Your task to perform on an android device: Search for a coffee table on IKEA Image 0: 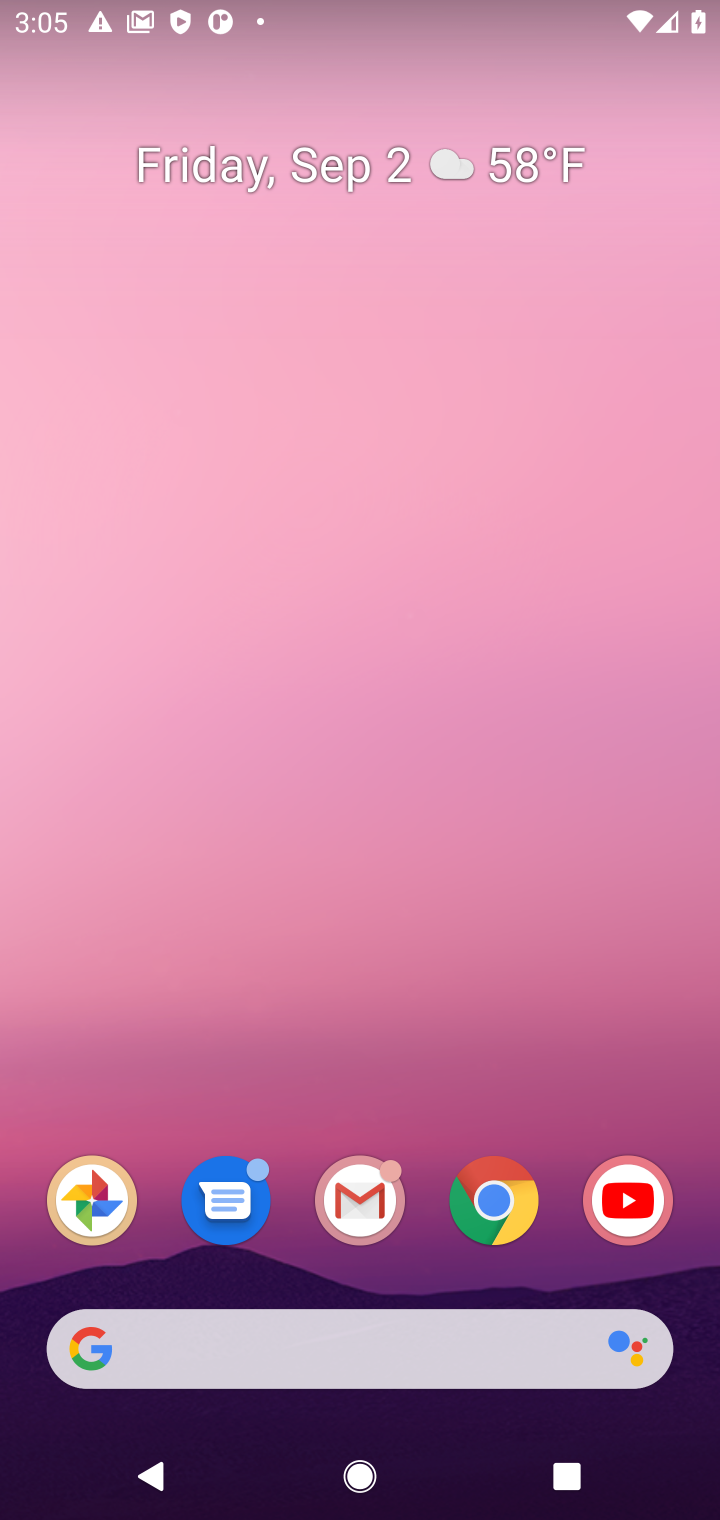
Step 0: click (496, 1201)
Your task to perform on an android device: Search for a coffee table on IKEA Image 1: 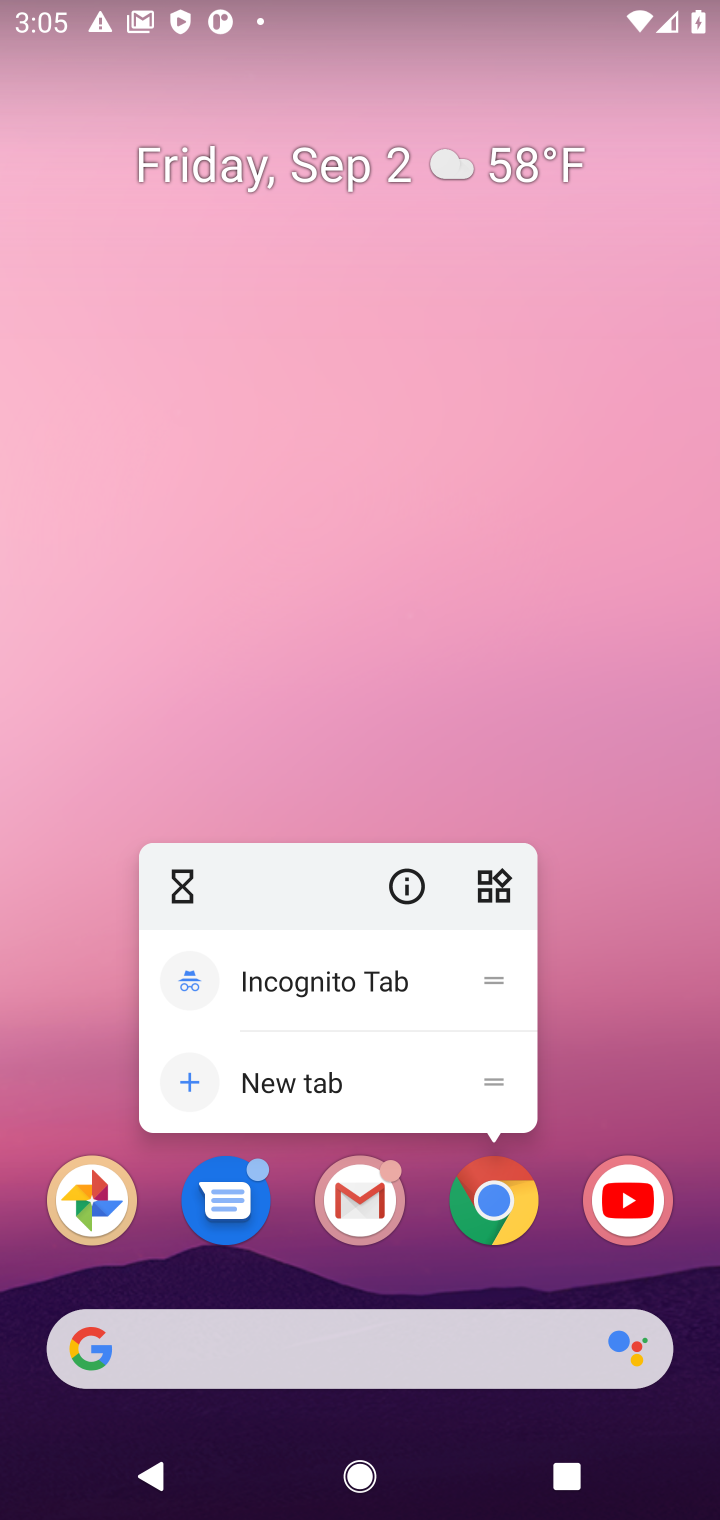
Step 1: click (496, 1203)
Your task to perform on an android device: Search for a coffee table on IKEA Image 2: 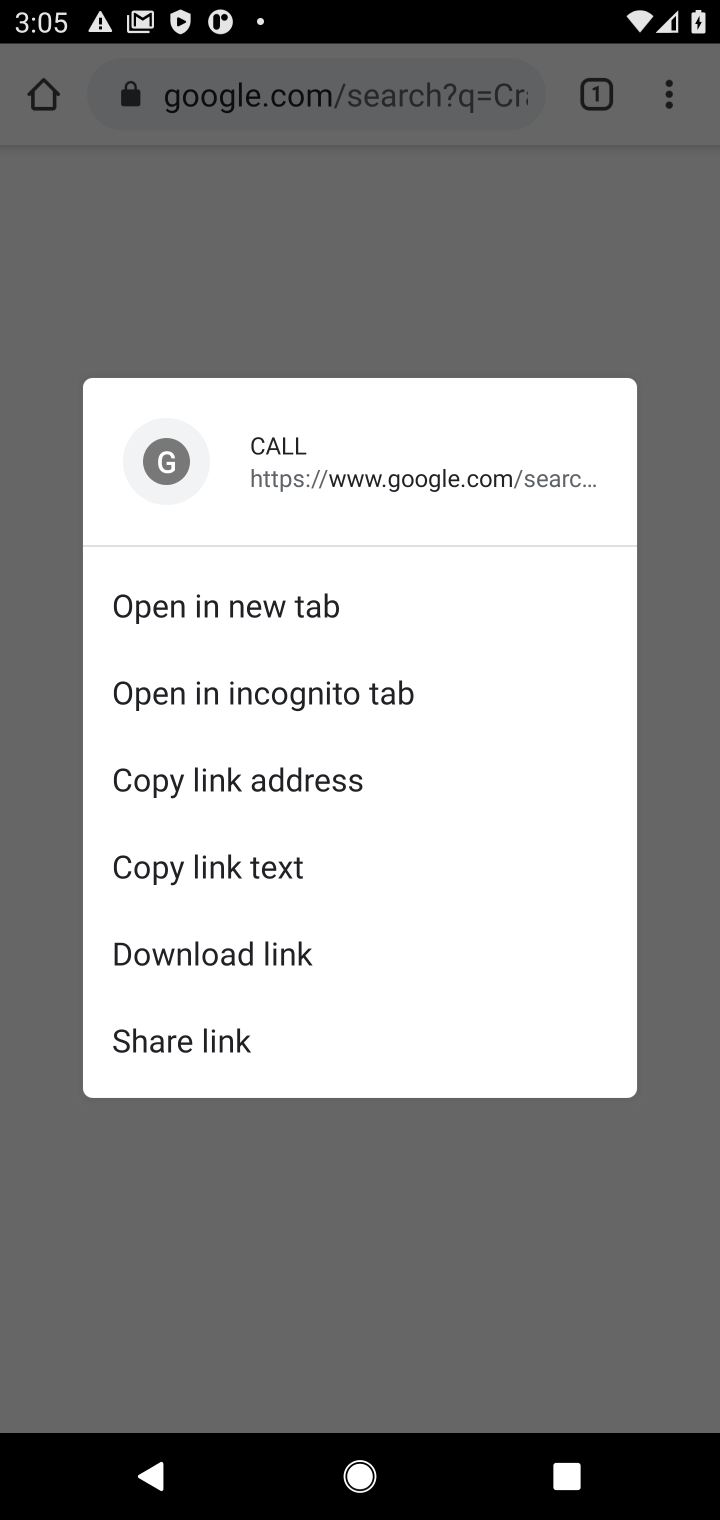
Step 2: click (388, 98)
Your task to perform on an android device: Search for a coffee table on IKEA Image 3: 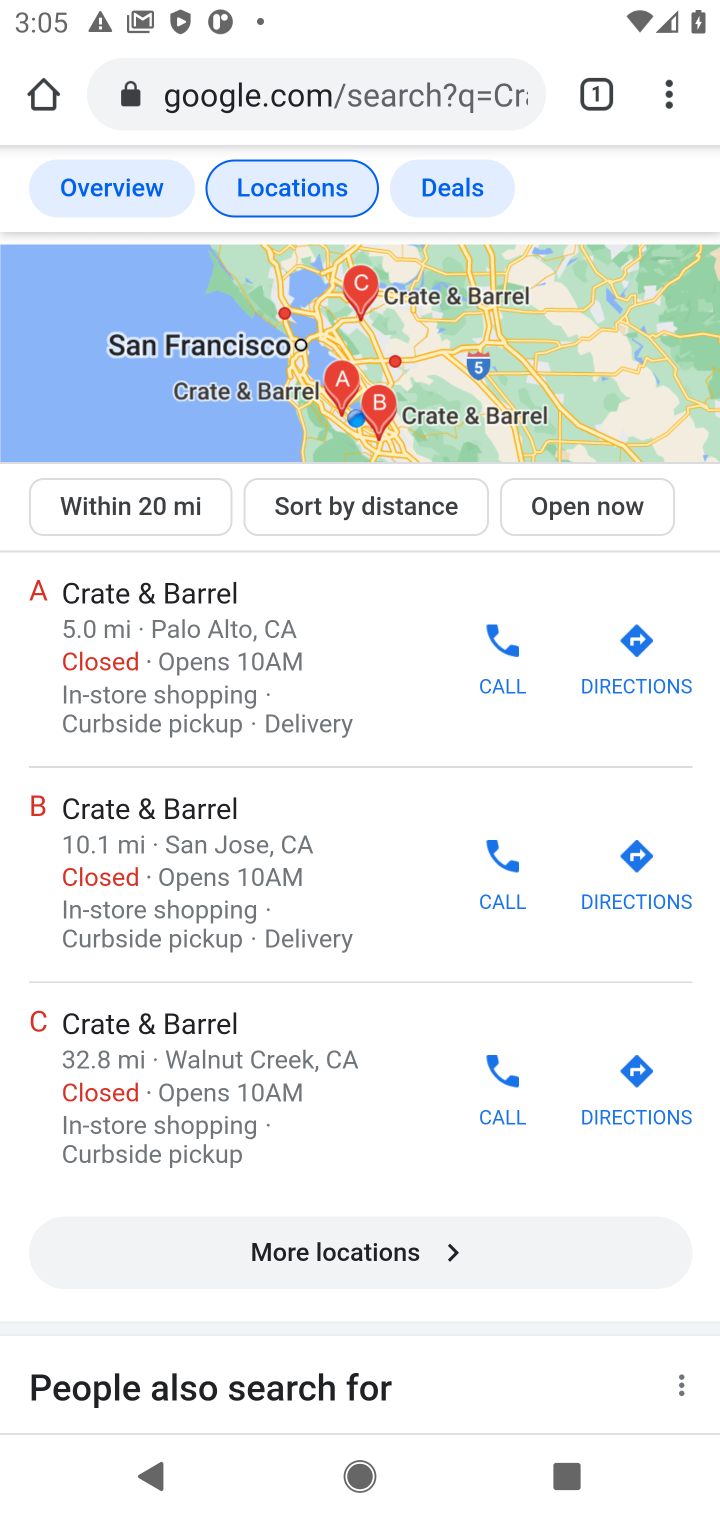
Step 3: click (413, 82)
Your task to perform on an android device: Search for a coffee table on IKEA Image 4: 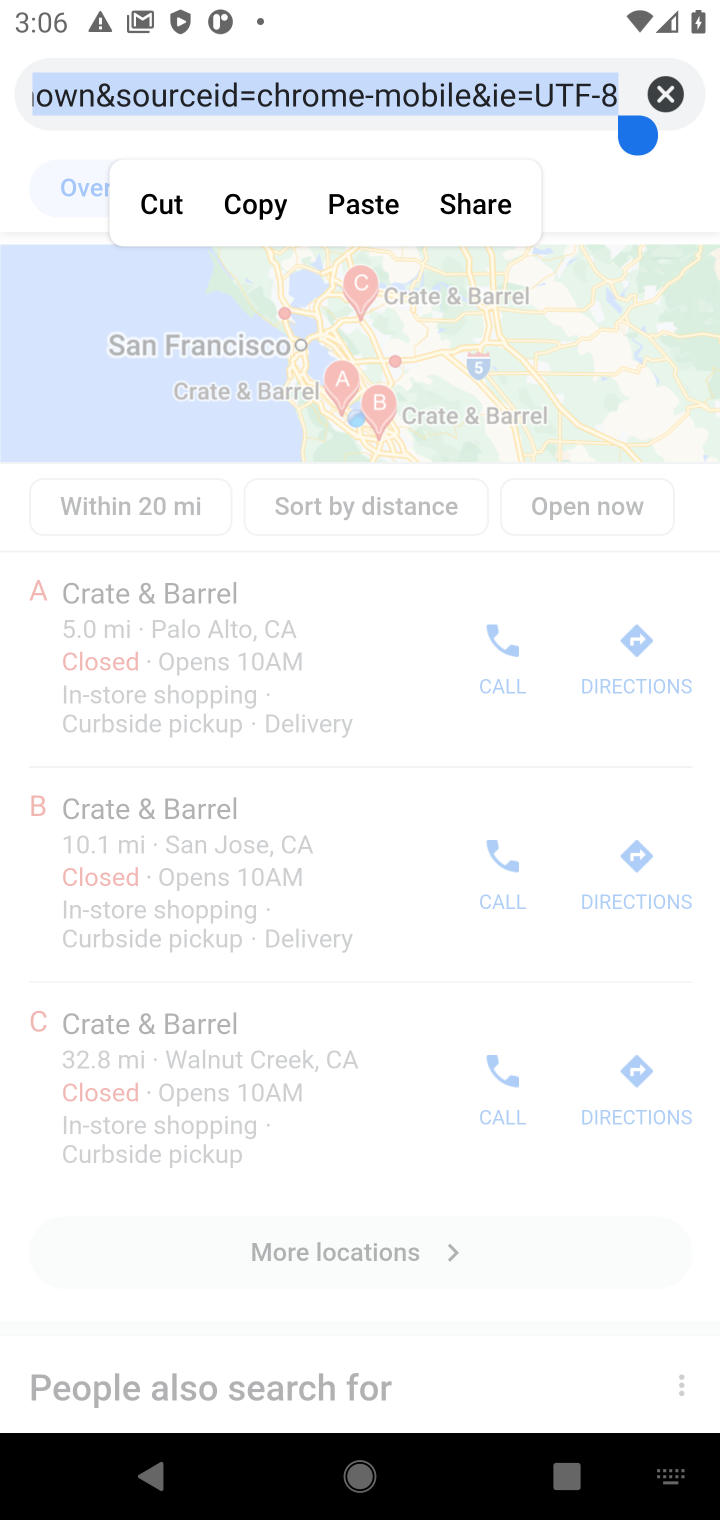
Step 4: click (662, 96)
Your task to perform on an android device: Search for a coffee table on IKEA Image 5: 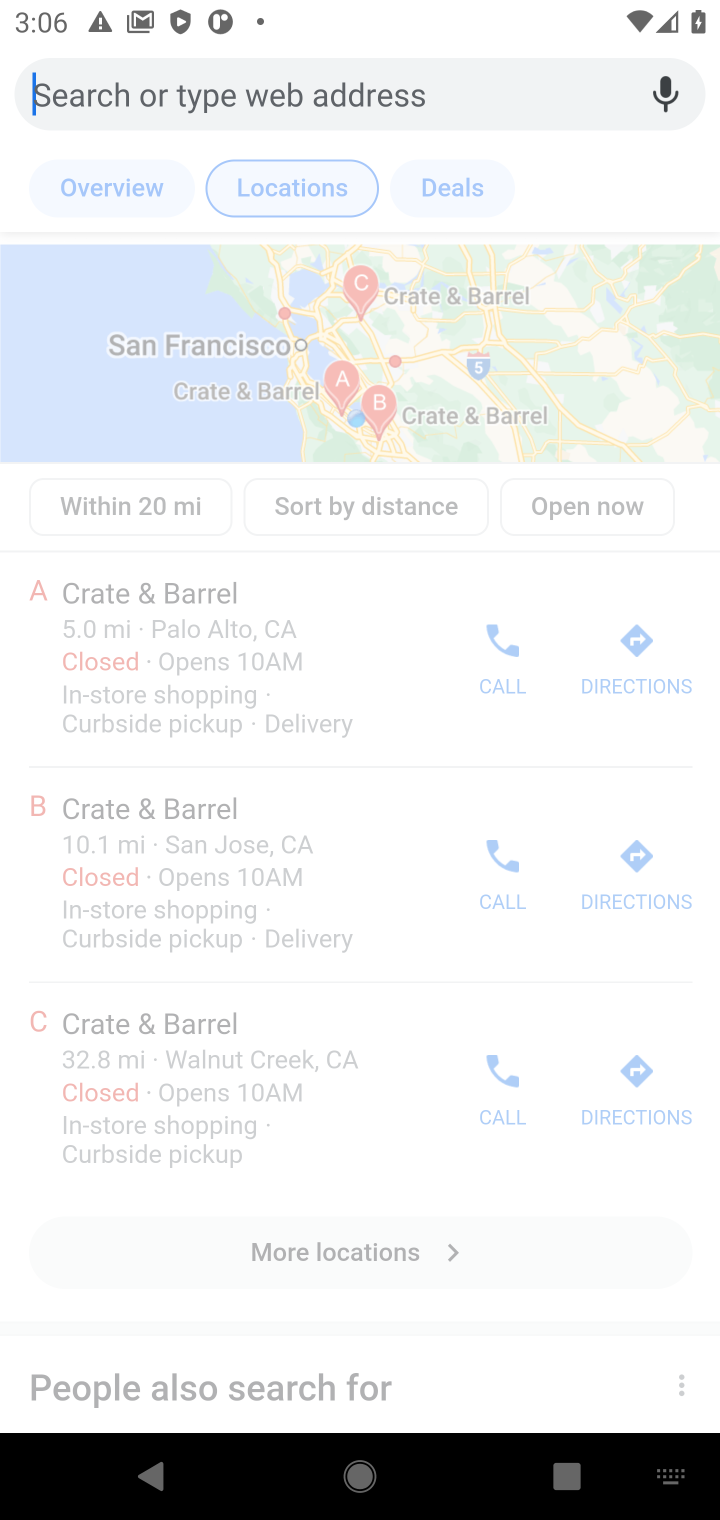
Step 5: click (468, 72)
Your task to perform on an android device: Search for a coffee table on IKEA Image 6: 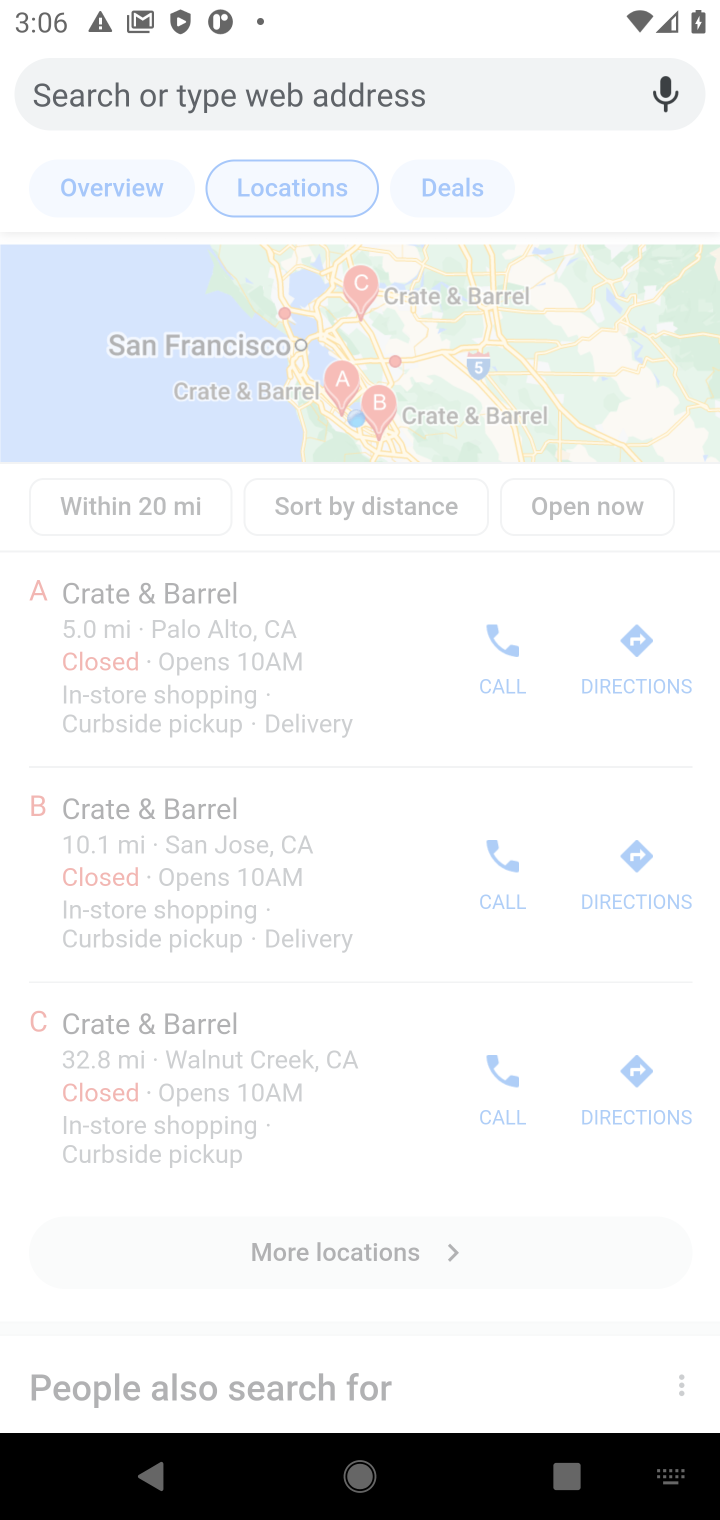
Step 6: type "IKEA"
Your task to perform on an android device: Search for a coffee table on IKEA Image 7: 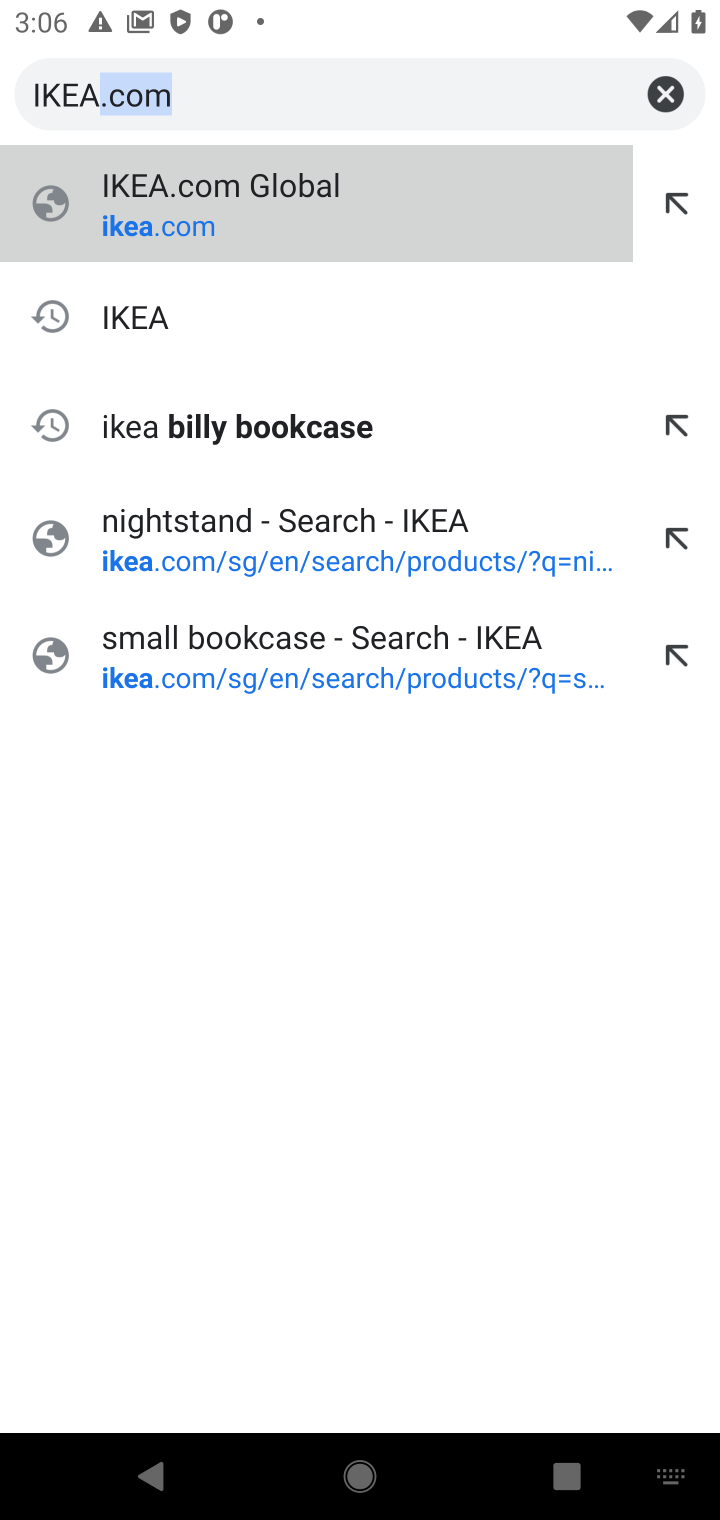
Step 7: press enter
Your task to perform on an android device: Search for a coffee table on IKEA Image 8: 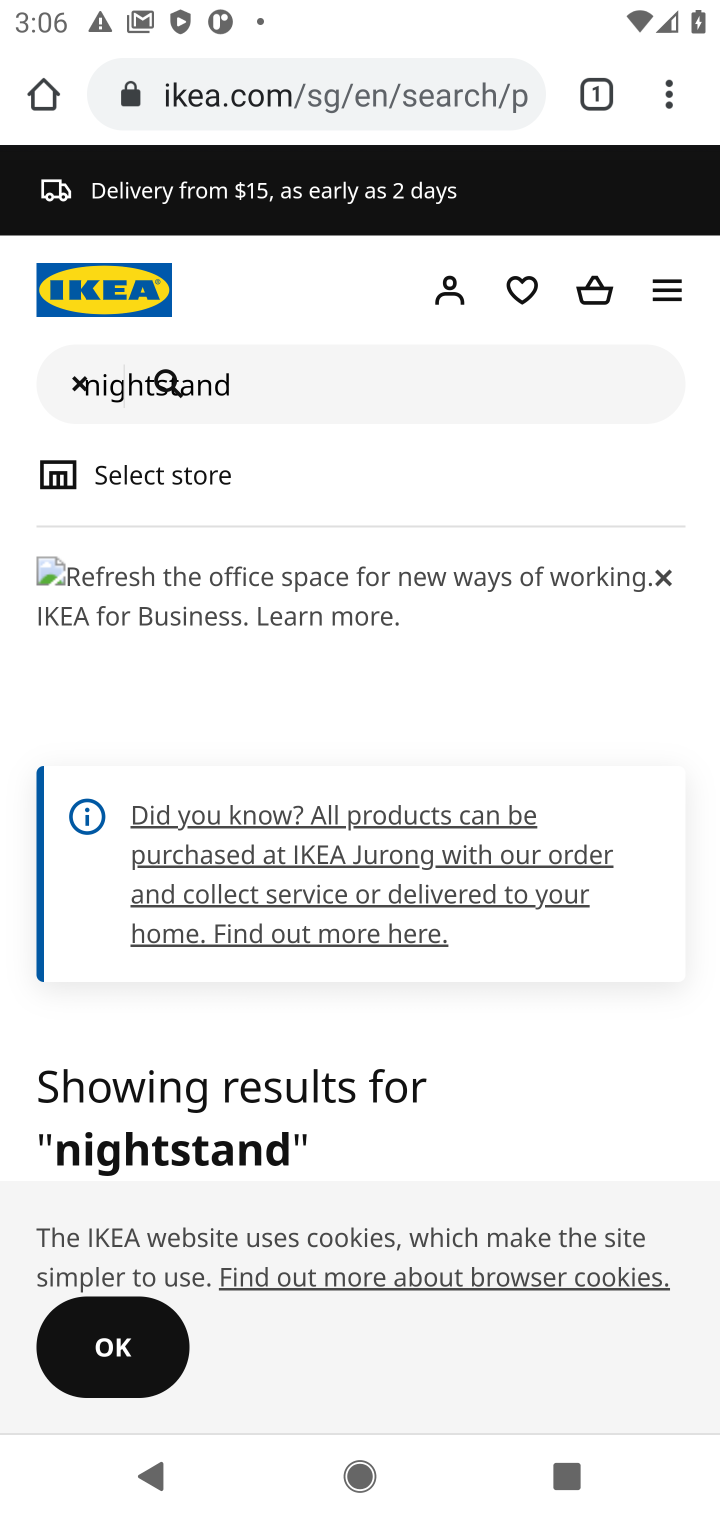
Step 8: click (367, 379)
Your task to perform on an android device: Search for a coffee table on IKEA Image 9: 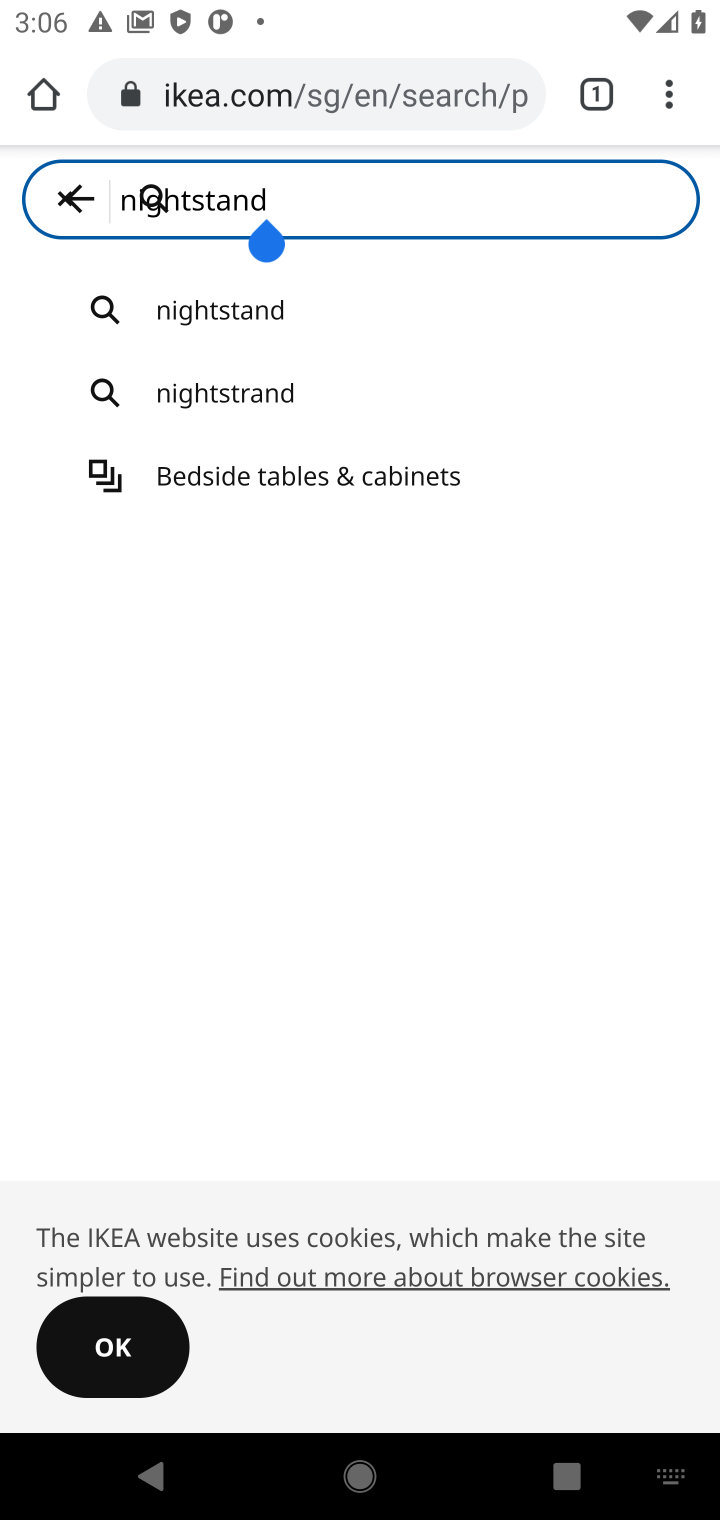
Step 9: click (393, 197)
Your task to perform on an android device: Search for a coffee table on IKEA Image 10: 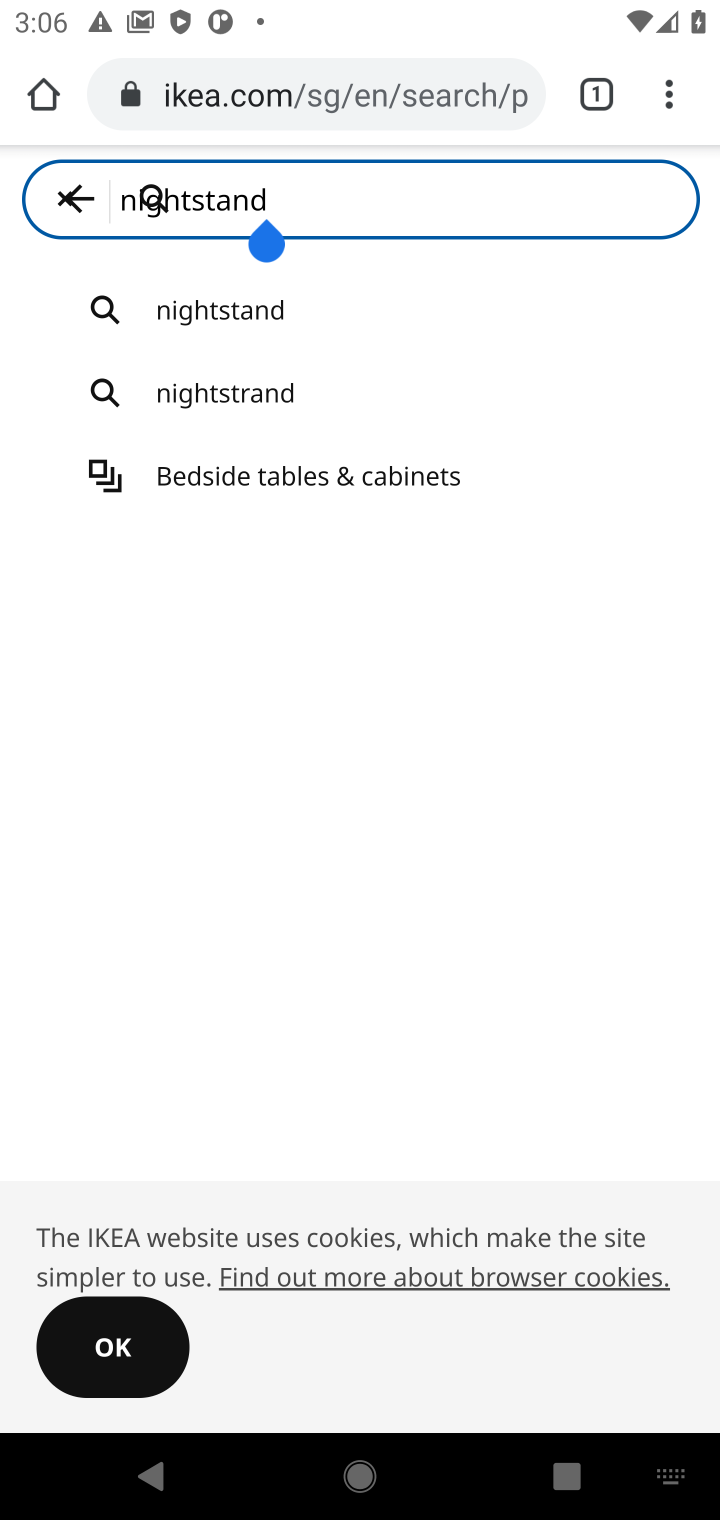
Step 10: click (157, 197)
Your task to perform on an android device: Search for a coffee table on IKEA Image 11: 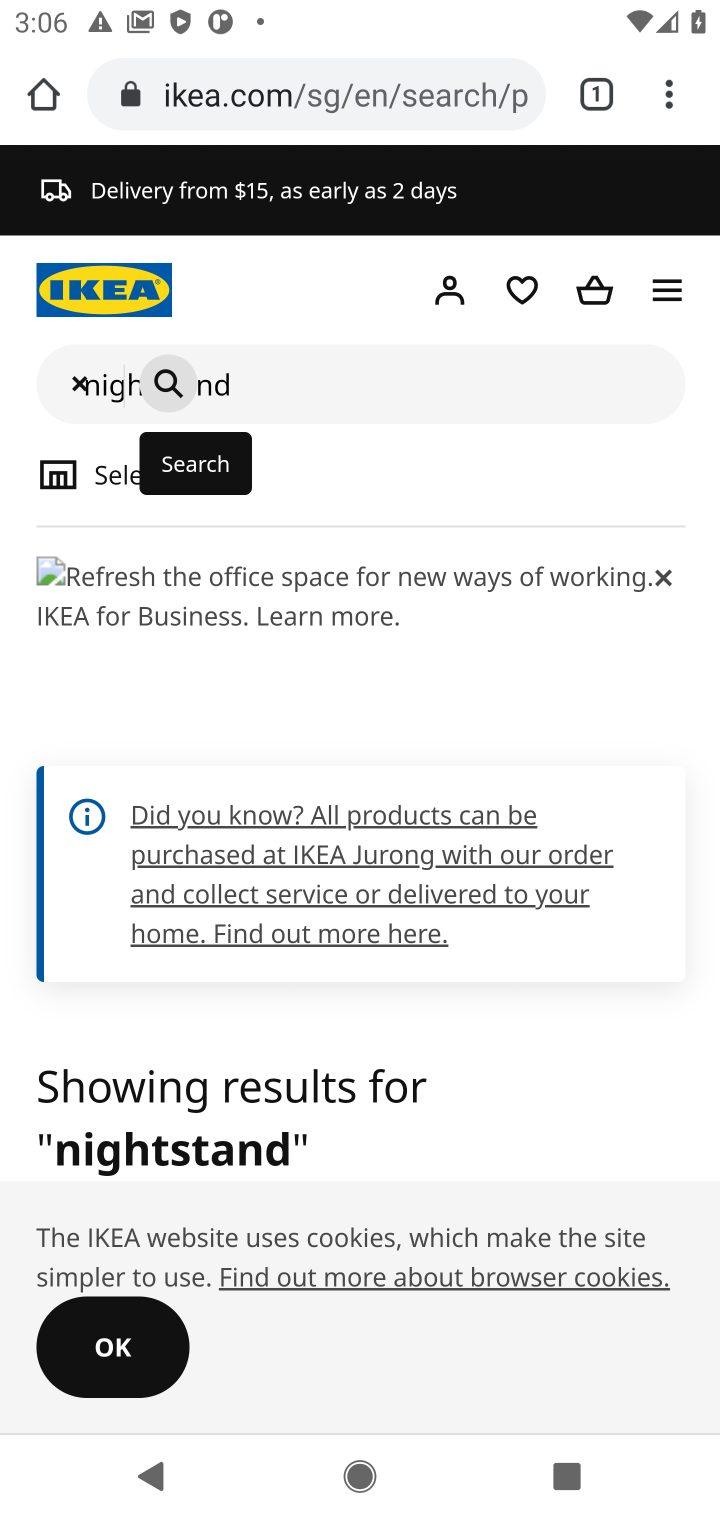
Step 11: click (284, 387)
Your task to perform on an android device: Search for a coffee table on IKEA Image 12: 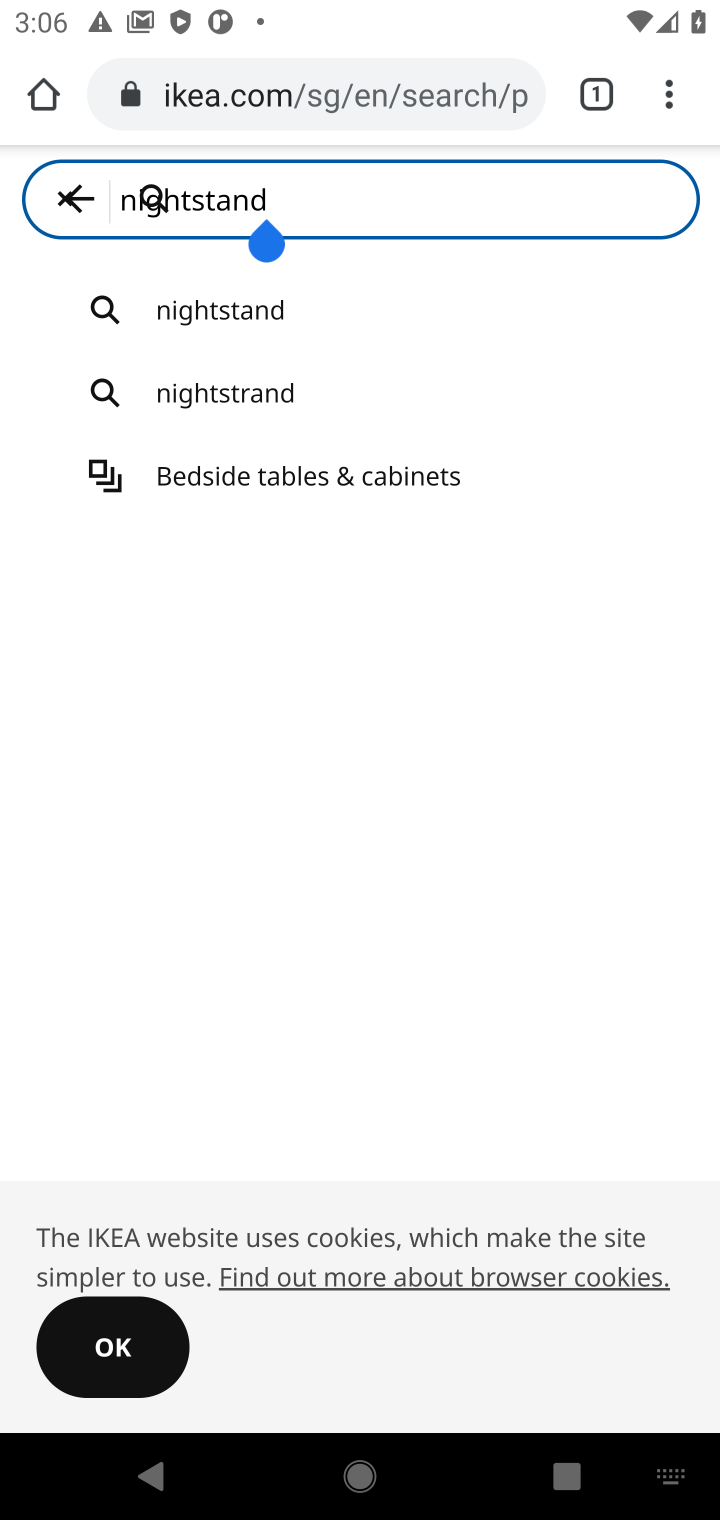
Step 12: click (65, 193)
Your task to perform on an android device: Search for a coffee table on IKEA Image 13: 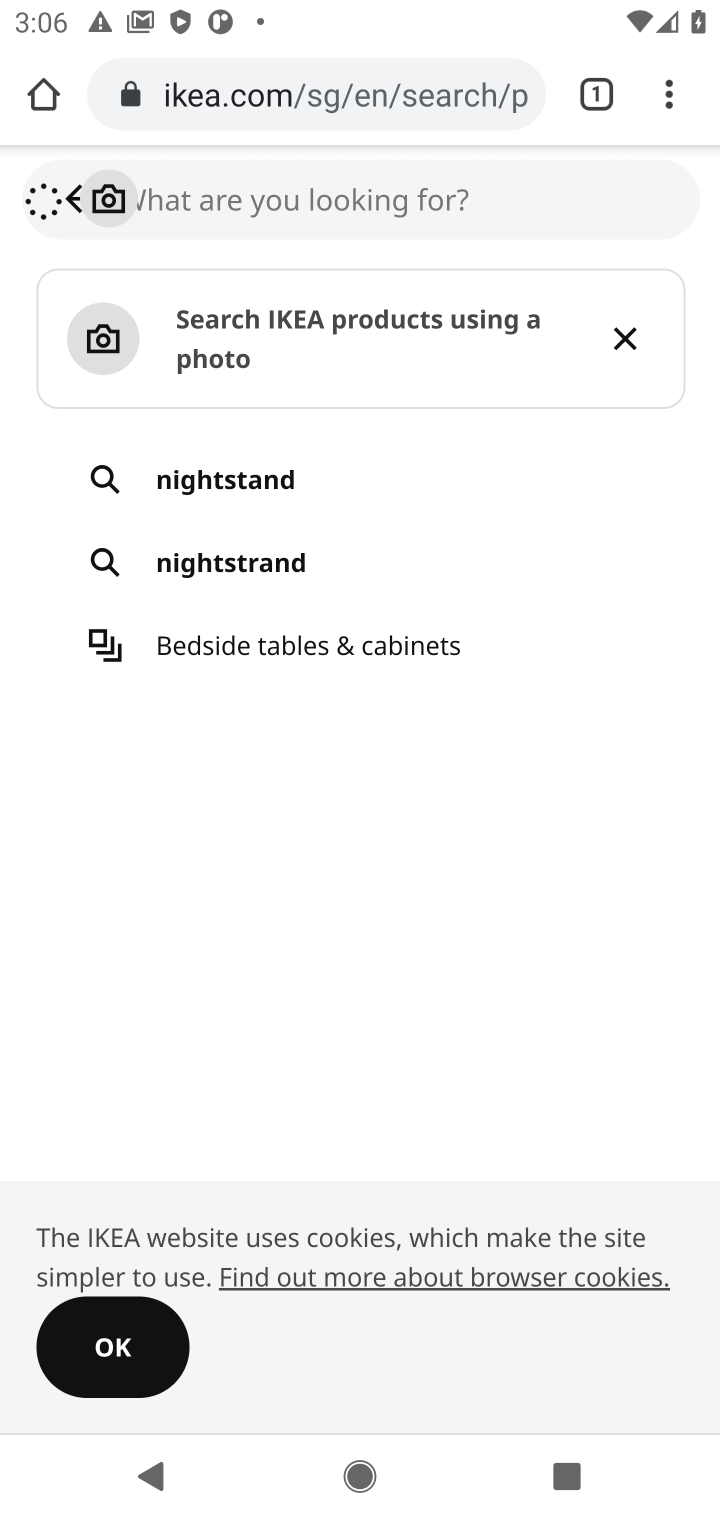
Step 13: click (252, 205)
Your task to perform on an android device: Search for a coffee table on IKEA Image 14: 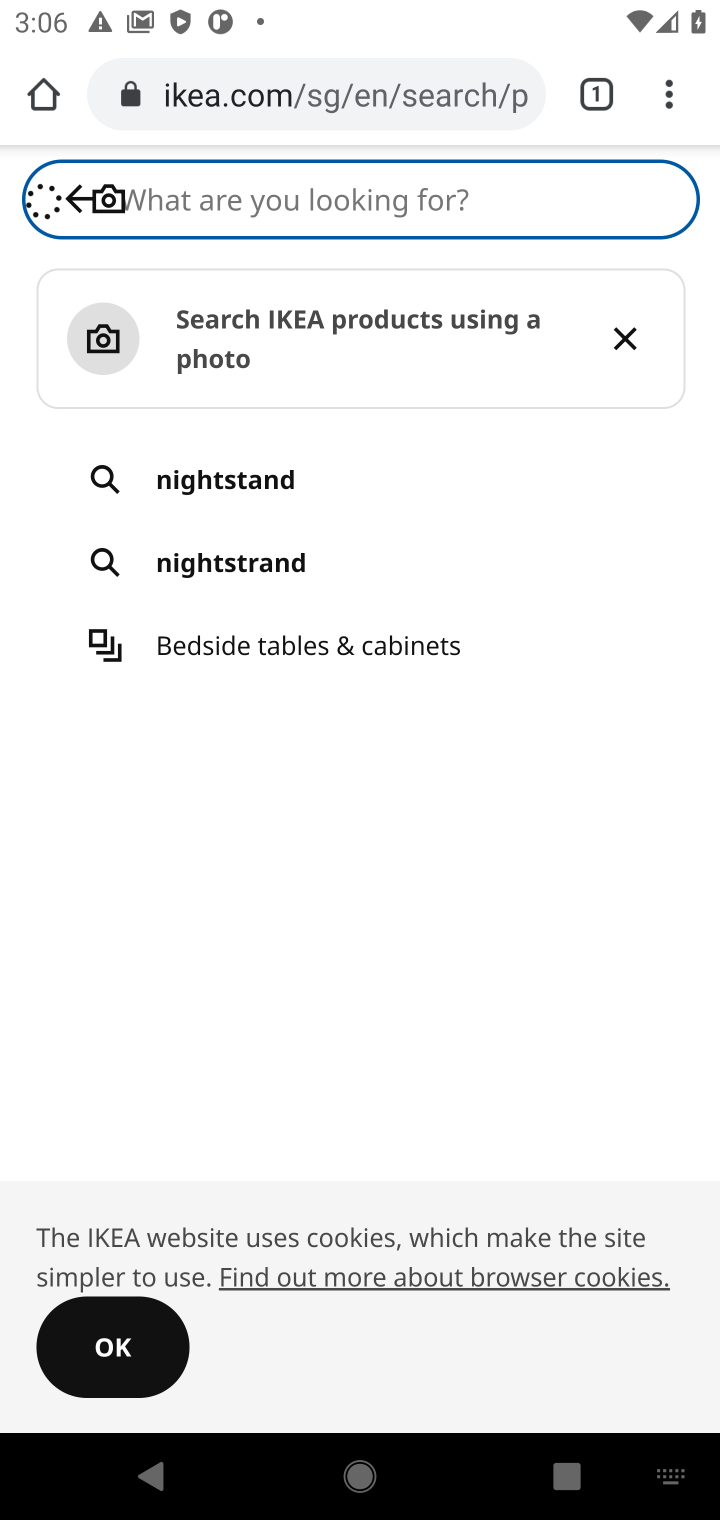
Step 14: type "coffee table"
Your task to perform on an android device: Search for a coffee table on IKEA Image 15: 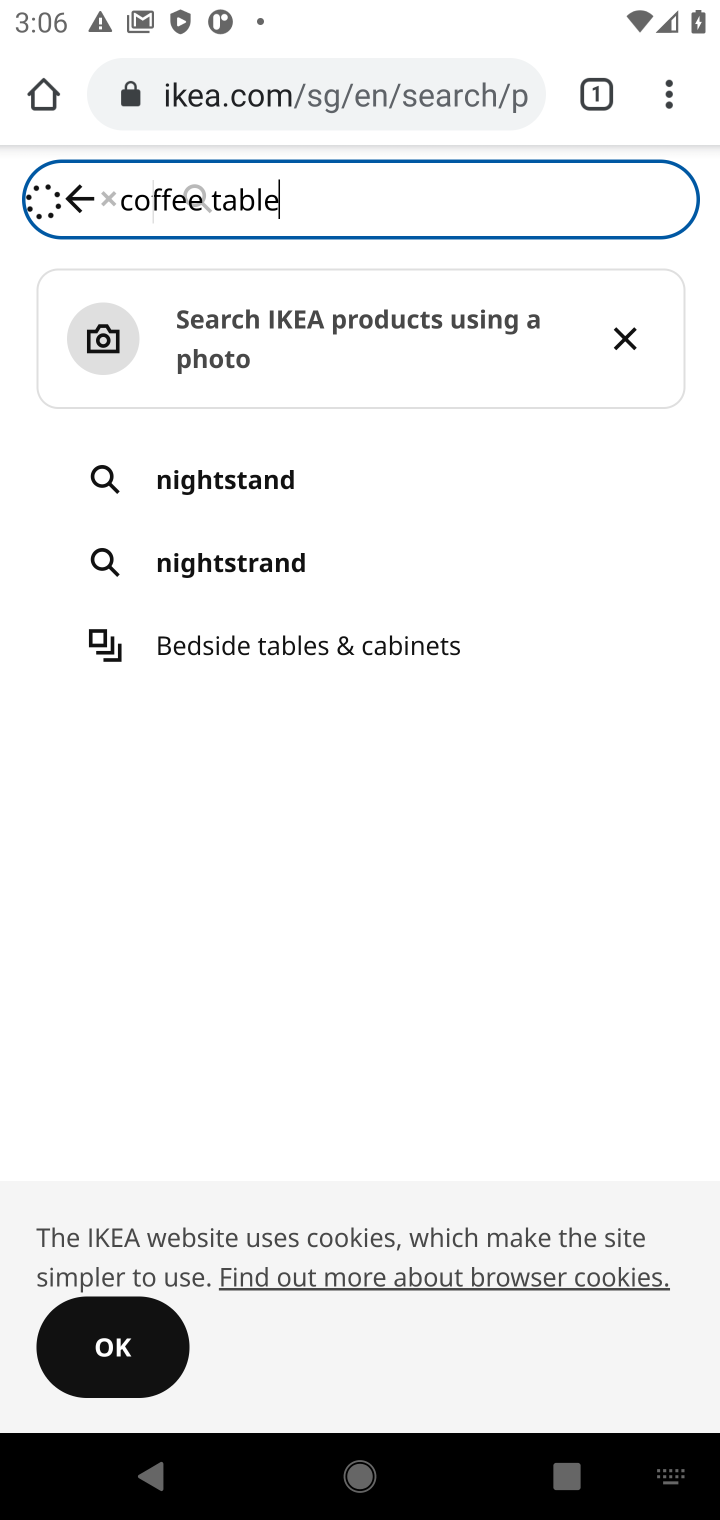
Step 15: press enter
Your task to perform on an android device: Search for a coffee table on IKEA Image 16: 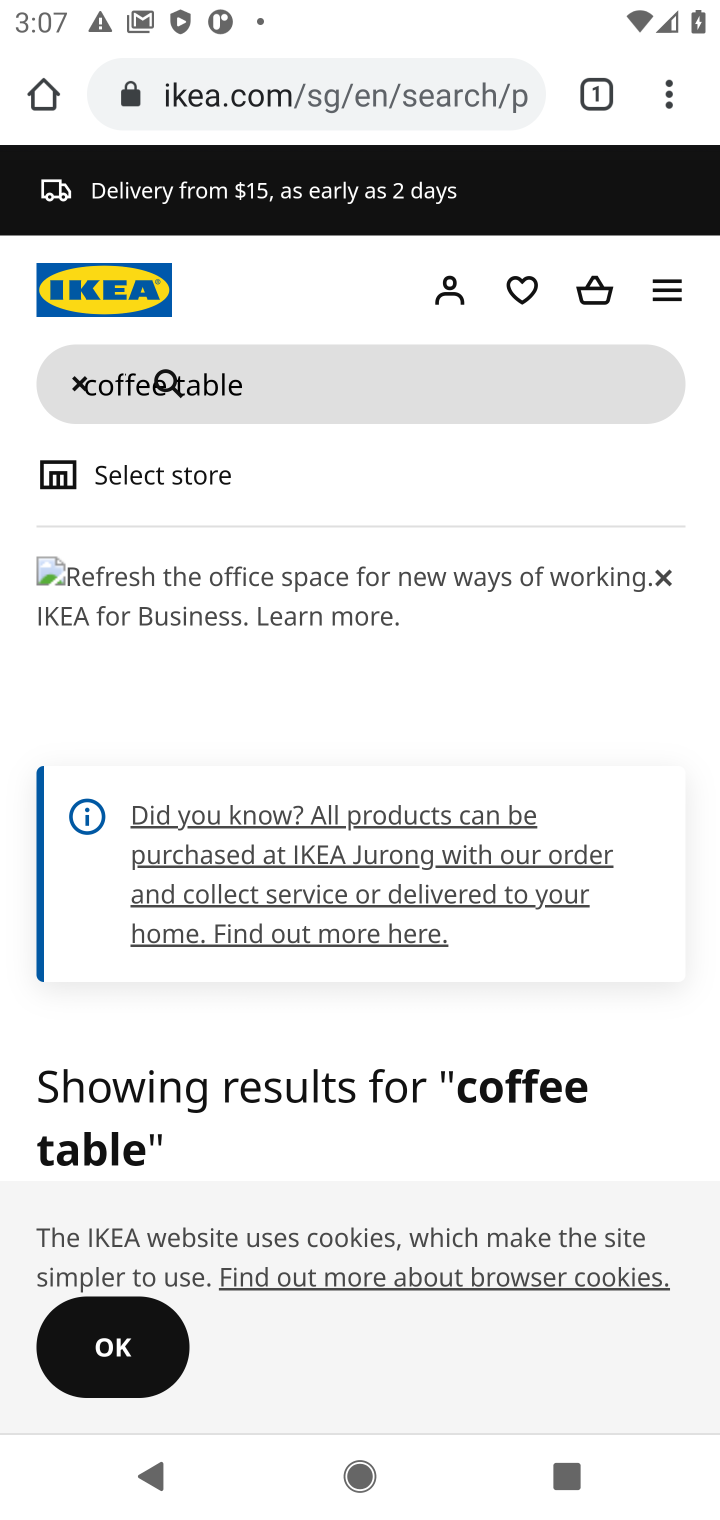
Step 16: drag from (418, 1202) to (538, 528)
Your task to perform on an android device: Search for a coffee table on IKEA Image 17: 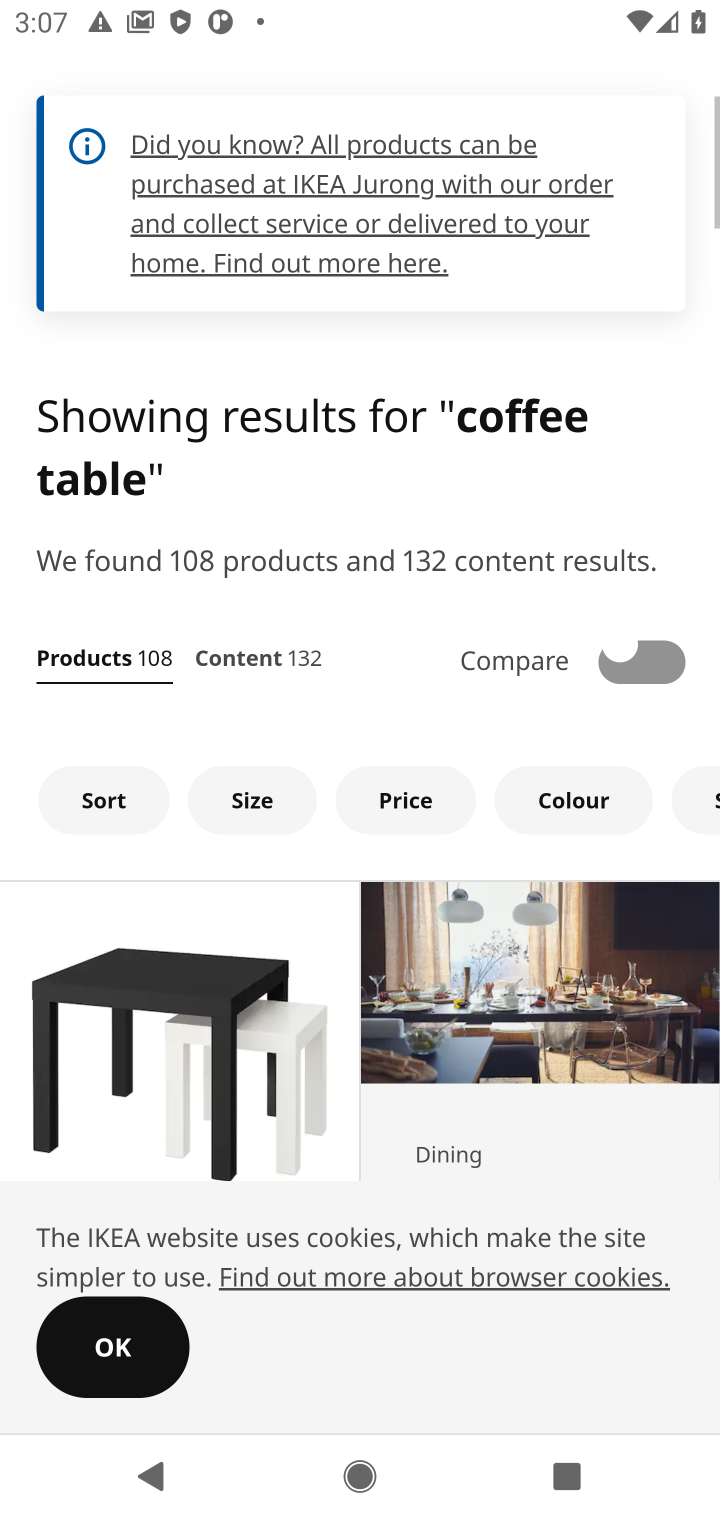
Step 17: click (296, 362)
Your task to perform on an android device: Search for a coffee table on IKEA Image 18: 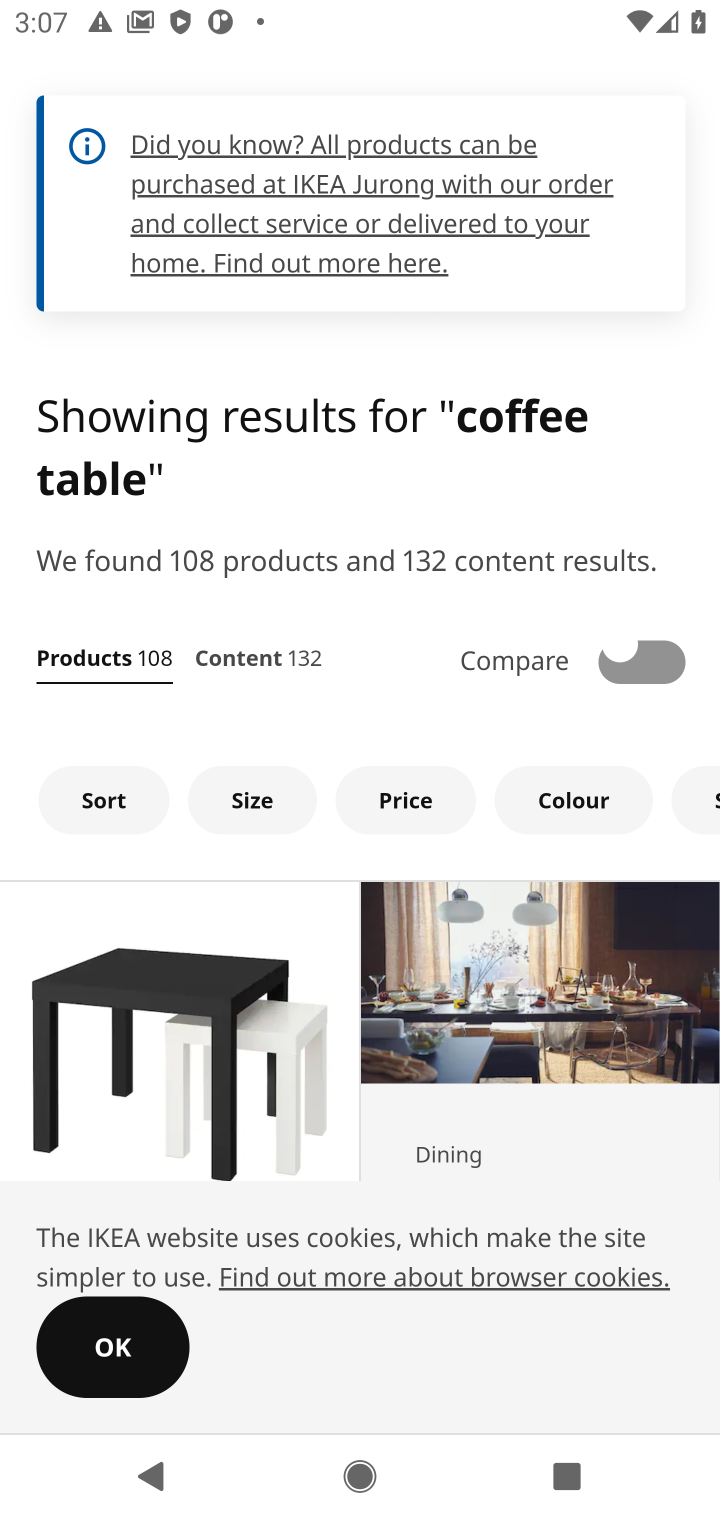
Step 18: task complete